Your task to perform on an android device: set an alarm Image 0: 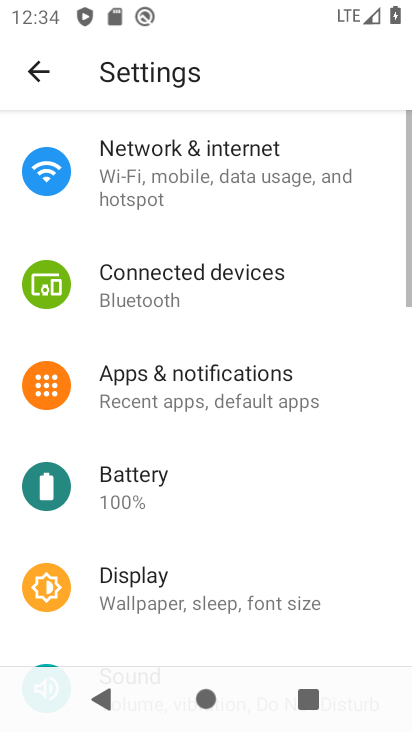
Step 0: press home button
Your task to perform on an android device: set an alarm Image 1: 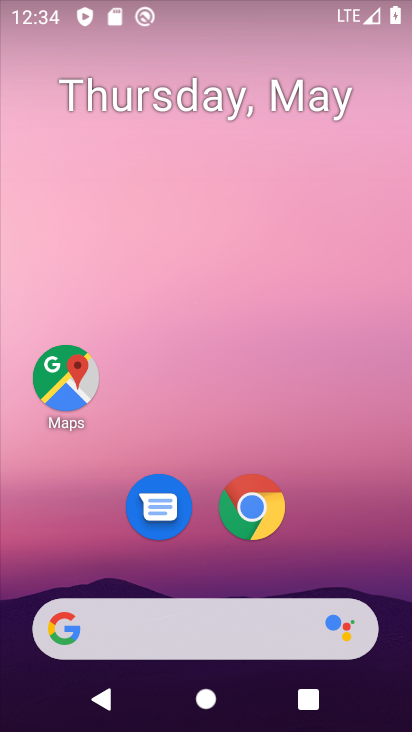
Step 1: drag from (198, 560) to (218, 179)
Your task to perform on an android device: set an alarm Image 2: 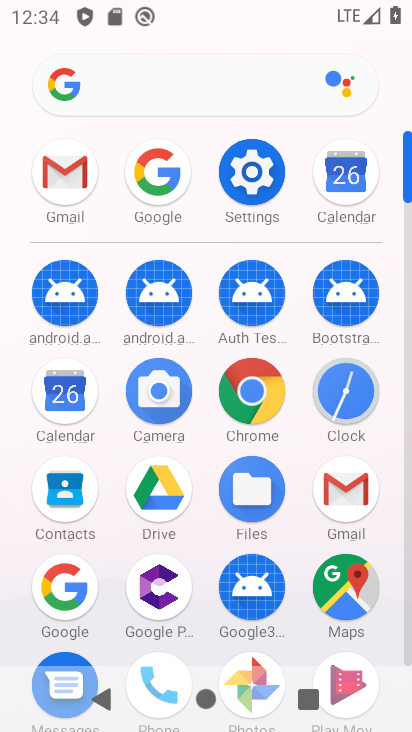
Step 2: click (335, 406)
Your task to perform on an android device: set an alarm Image 3: 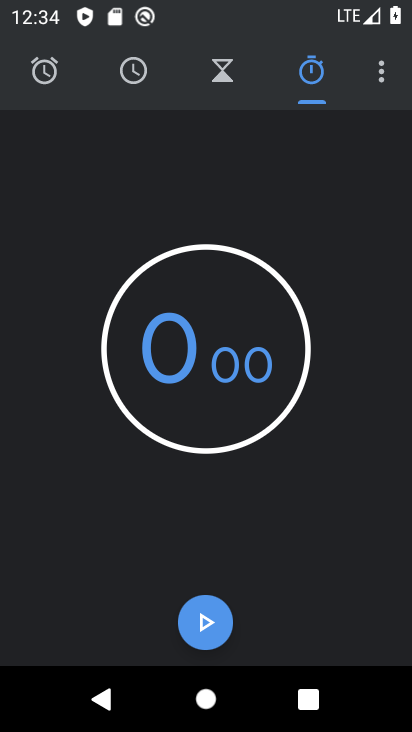
Step 3: click (52, 56)
Your task to perform on an android device: set an alarm Image 4: 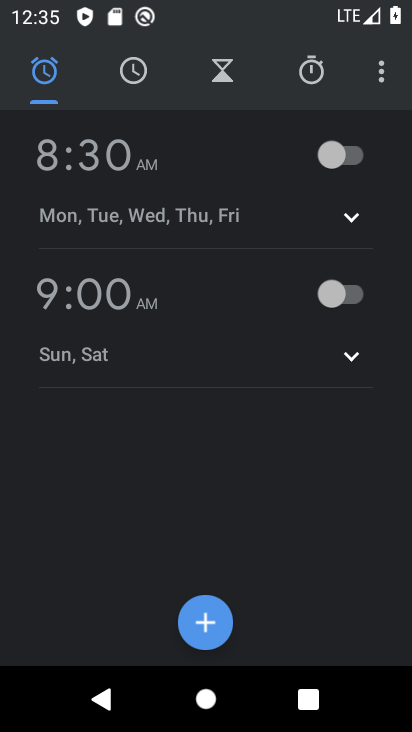
Step 4: click (364, 154)
Your task to perform on an android device: set an alarm Image 5: 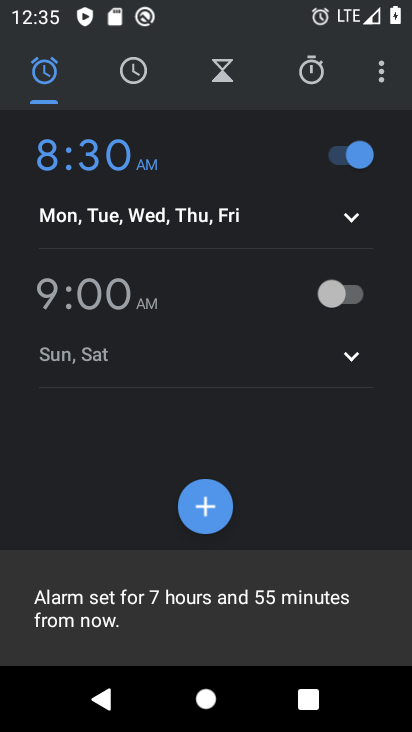
Step 5: task complete